Your task to perform on an android device: find which apps use the phone's location Image 0: 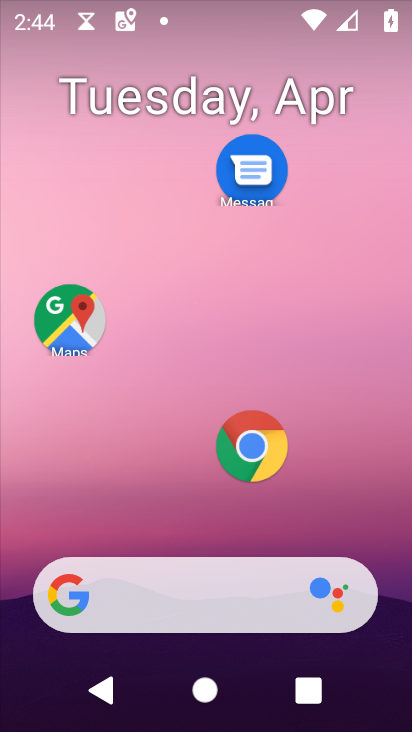
Step 0: drag from (147, 412) to (166, 76)
Your task to perform on an android device: find which apps use the phone's location Image 1: 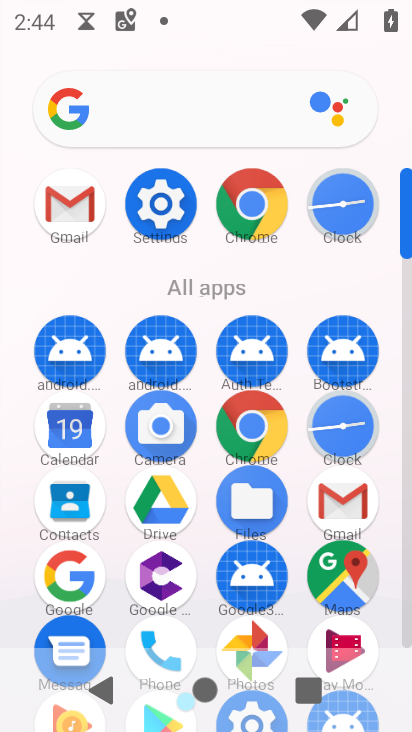
Step 1: click (159, 218)
Your task to perform on an android device: find which apps use the phone's location Image 2: 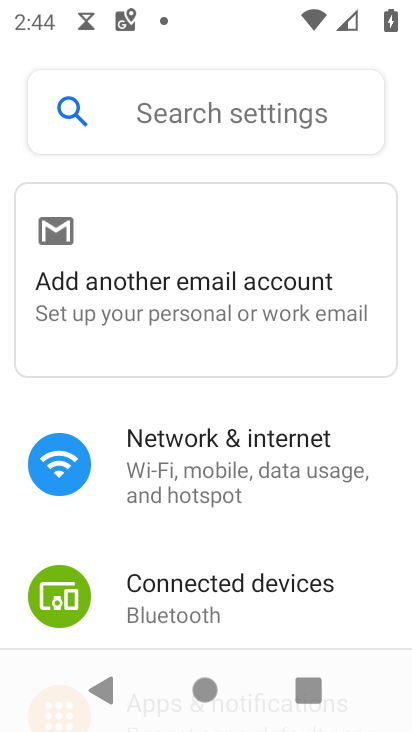
Step 2: drag from (196, 509) to (208, 119)
Your task to perform on an android device: find which apps use the phone's location Image 3: 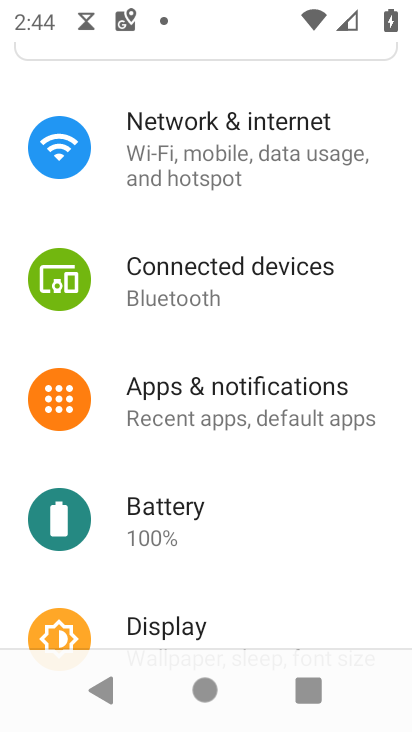
Step 3: drag from (210, 558) to (203, 161)
Your task to perform on an android device: find which apps use the phone's location Image 4: 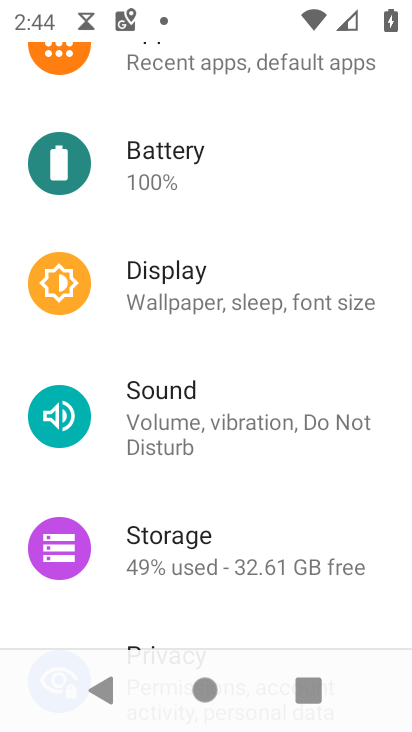
Step 4: drag from (196, 561) to (204, 147)
Your task to perform on an android device: find which apps use the phone's location Image 5: 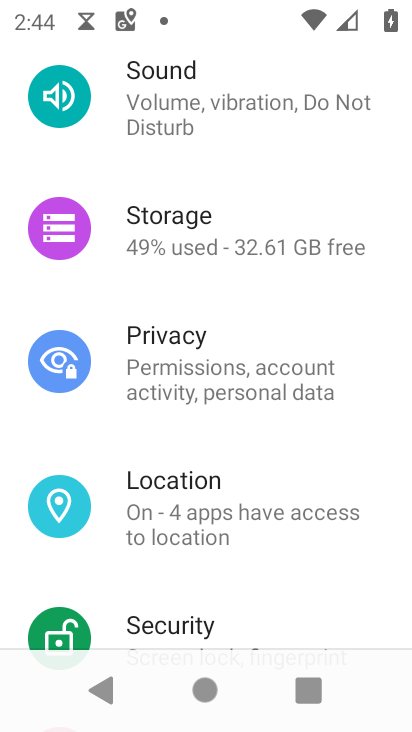
Step 5: click (204, 514)
Your task to perform on an android device: find which apps use the phone's location Image 6: 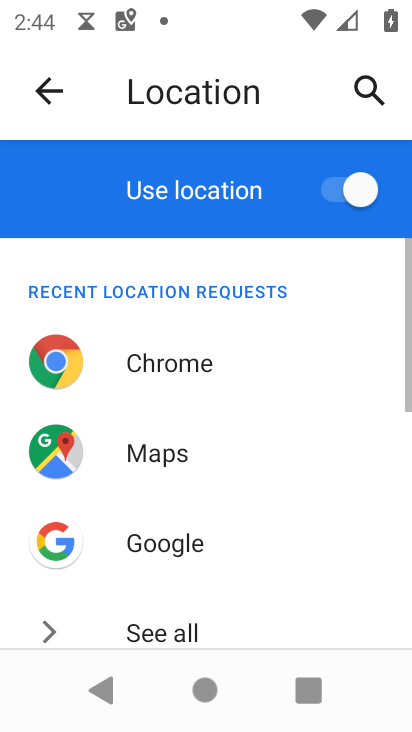
Step 6: drag from (203, 521) to (218, 316)
Your task to perform on an android device: find which apps use the phone's location Image 7: 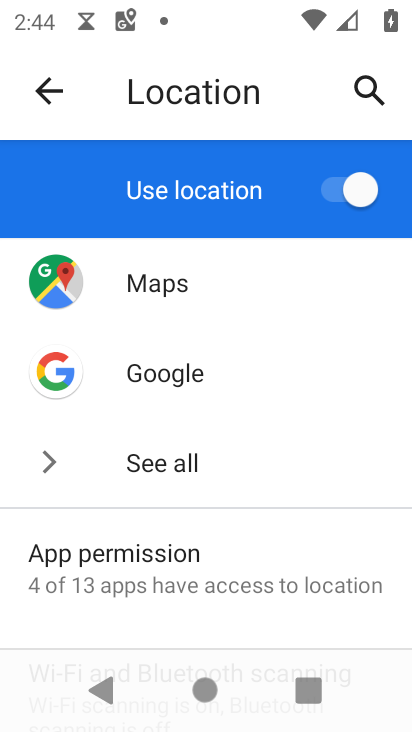
Step 7: click (160, 464)
Your task to perform on an android device: find which apps use the phone's location Image 8: 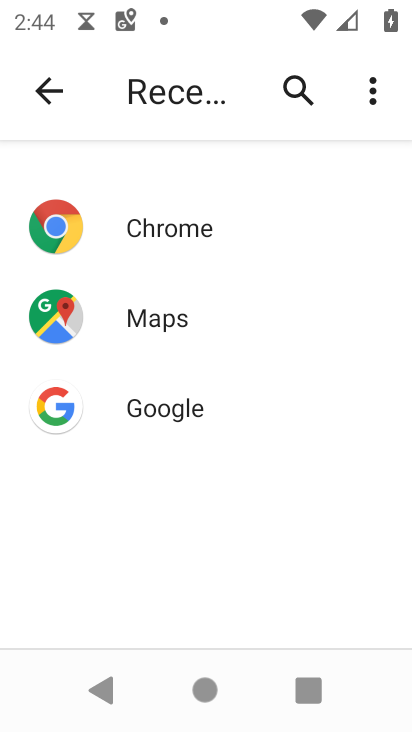
Step 8: task complete